Your task to perform on an android device: Search for Mexican restaurants on Maps Image 0: 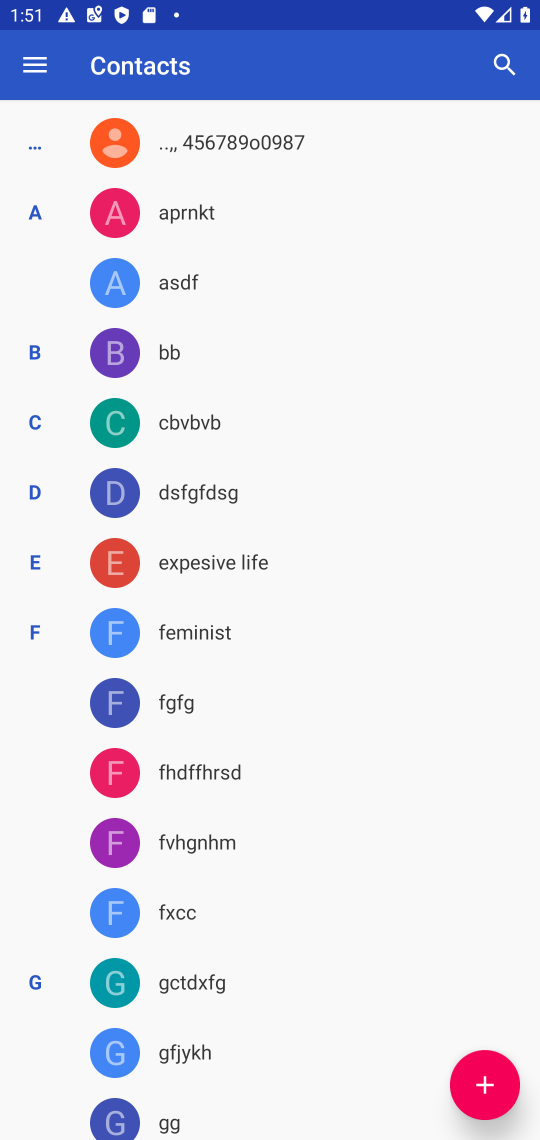
Step 0: press home button
Your task to perform on an android device: Search for Mexican restaurants on Maps Image 1: 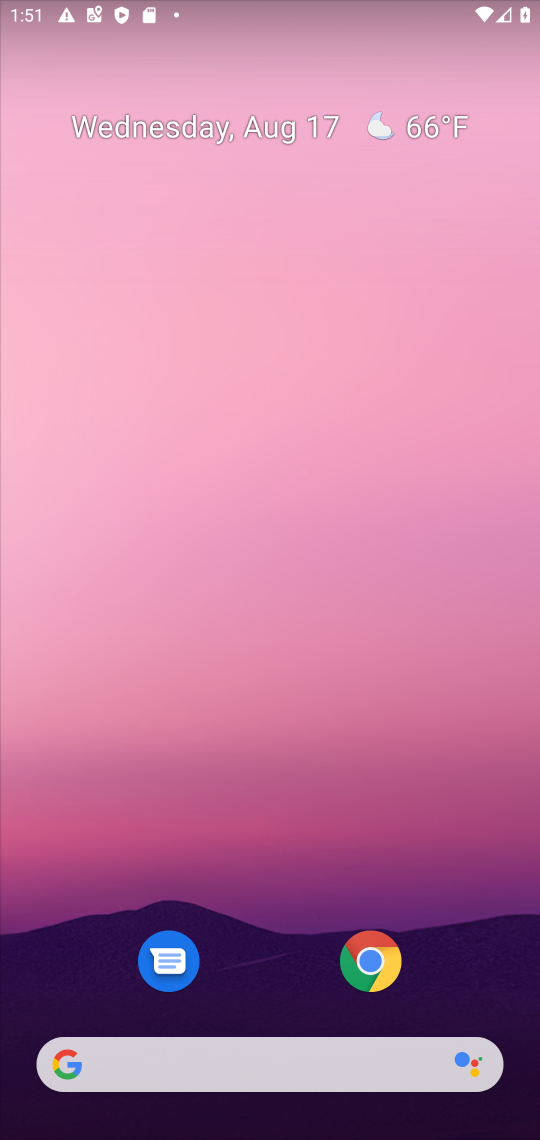
Step 1: drag from (279, 927) to (489, 119)
Your task to perform on an android device: Search for Mexican restaurants on Maps Image 2: 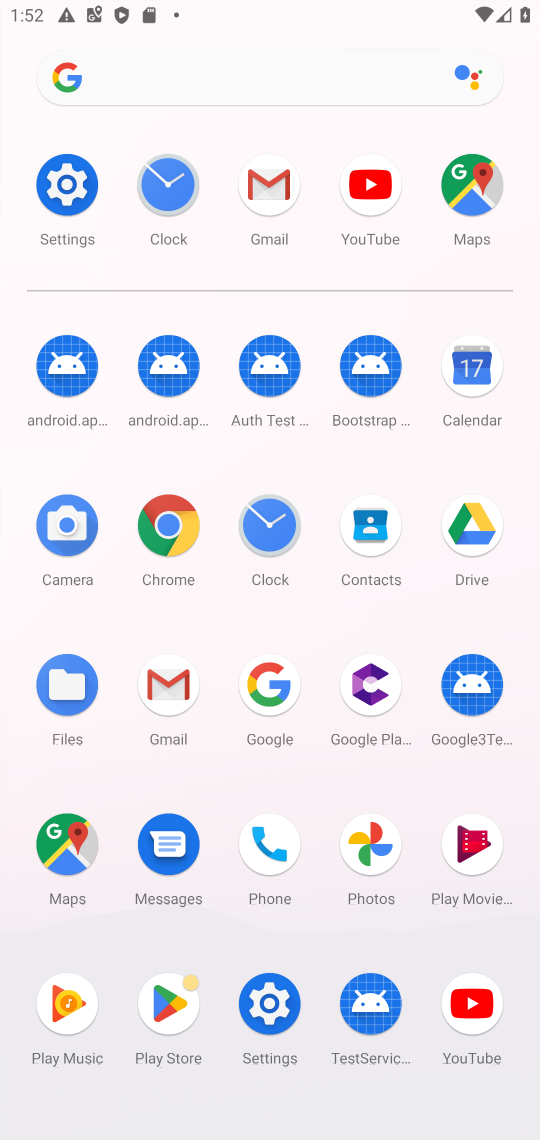
Step 2: click (471, 189)
Your task to perform on an android device: Search for Mexican restaurants on Maps Image 3: 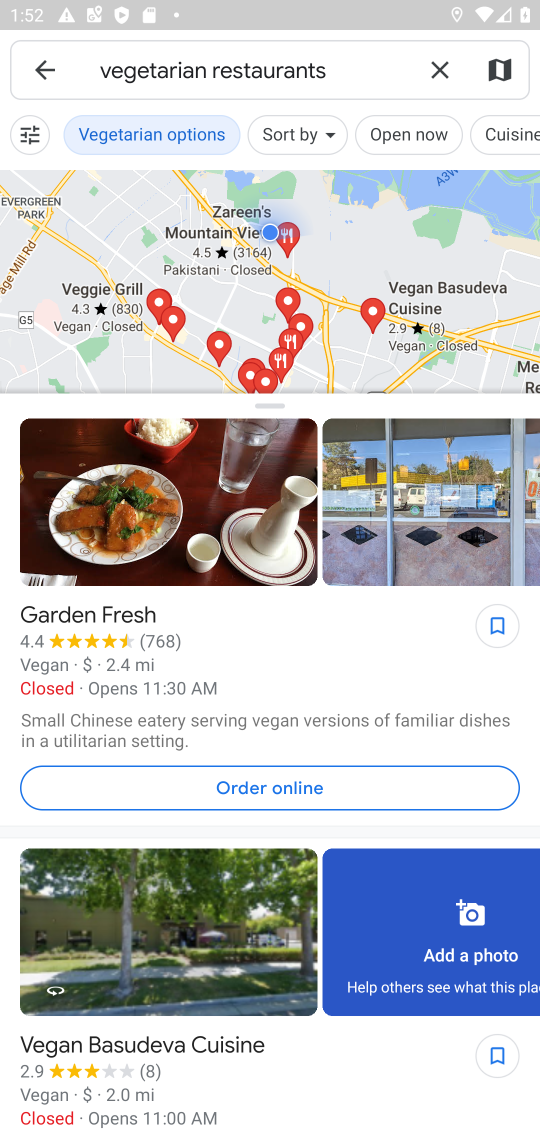
Step 3: click (457, 61)
Your task to perform on an android device: Search for Mexican restaurants on Maps Image 4: 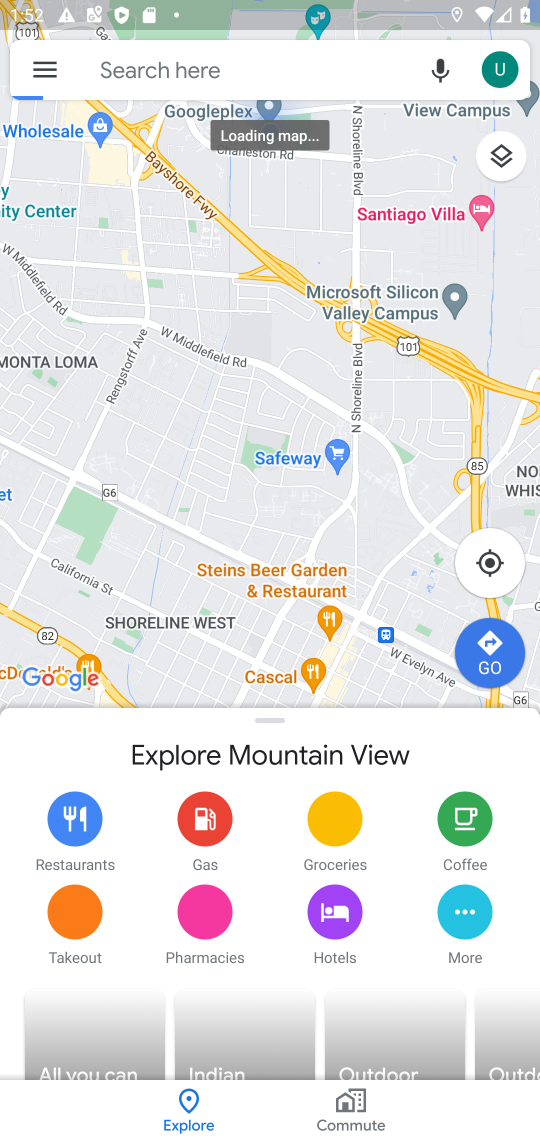
Step 4: click (264, 71)
Your task to perform on an android device: Search for Mexican restaurants on Maps Image 5: 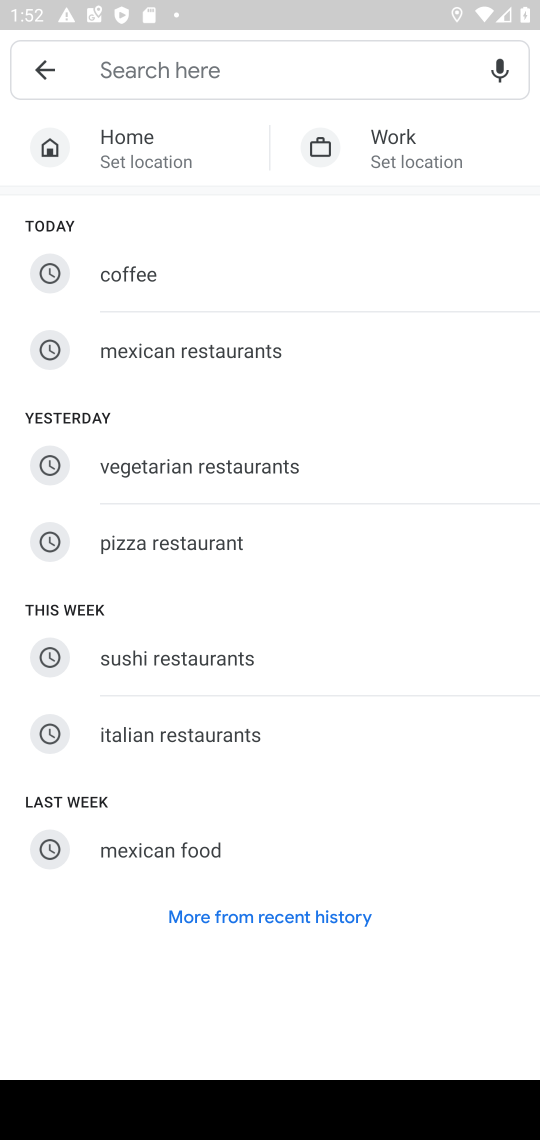
Step 5: click (243, 354)
Your task to perform on an android device: Search for Mexican restaurants on Maps Image 6: 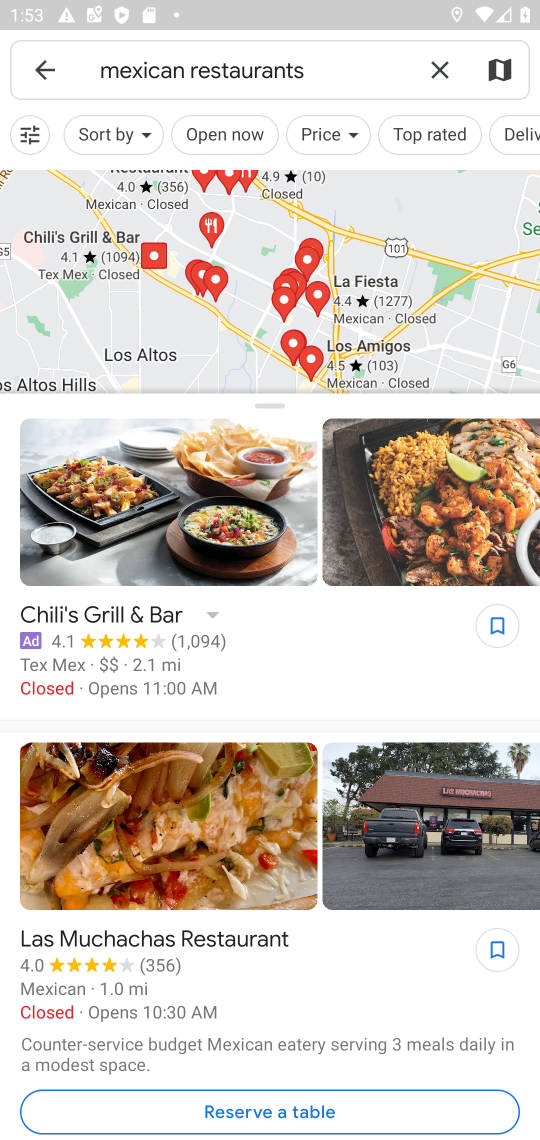
Step 6: task complete